Your task to perform on an android device: Open Yahoo.com Image 0: 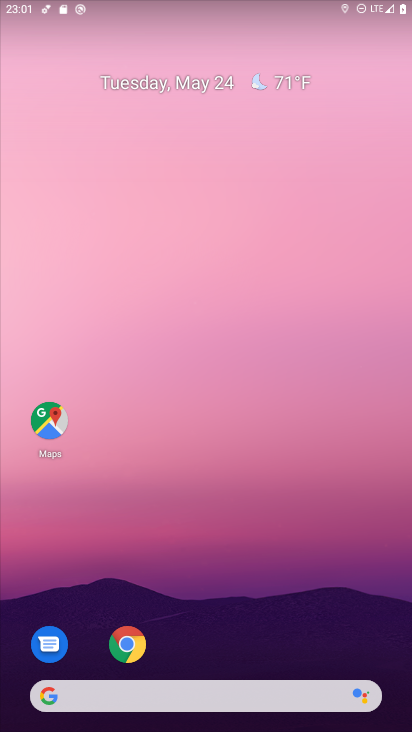
Step 0: click (132, 637)
Your task to perform on an android device: Open Yahoo.com Image 1: 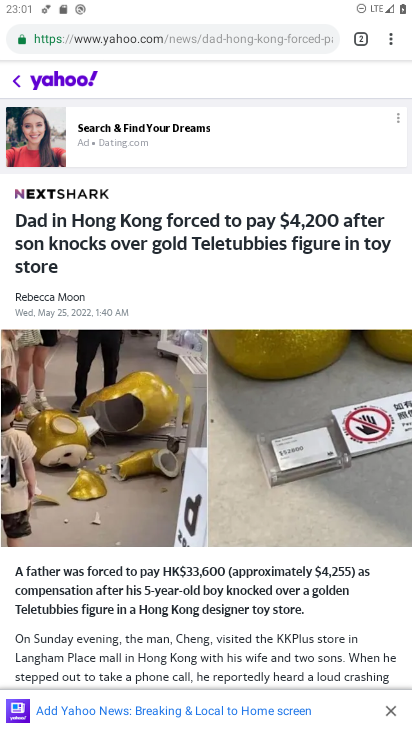
Step 1: task complete